Your task to perform on an android device: change notifications settings Image 0: 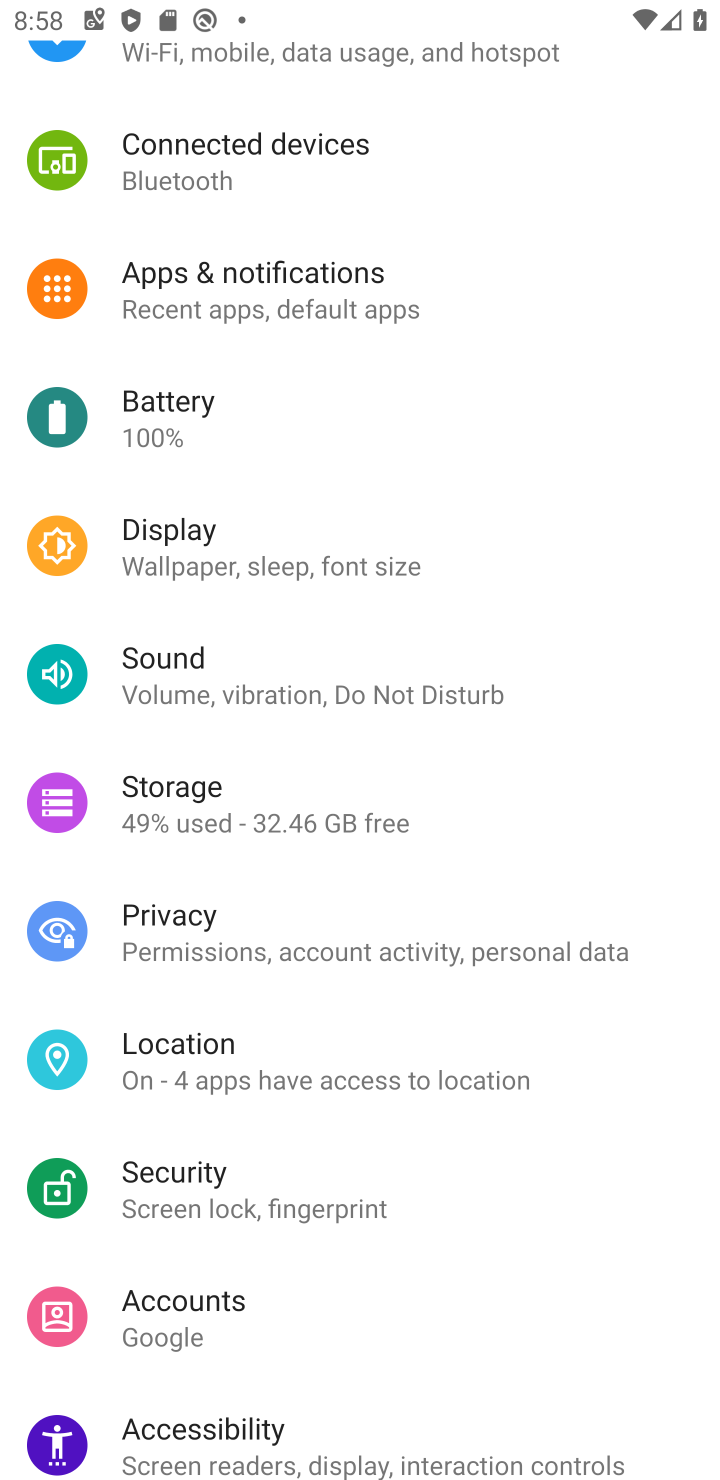
Step 0: click (261, 307)
Your task to perform on an android device: change notifications settings Image 1: 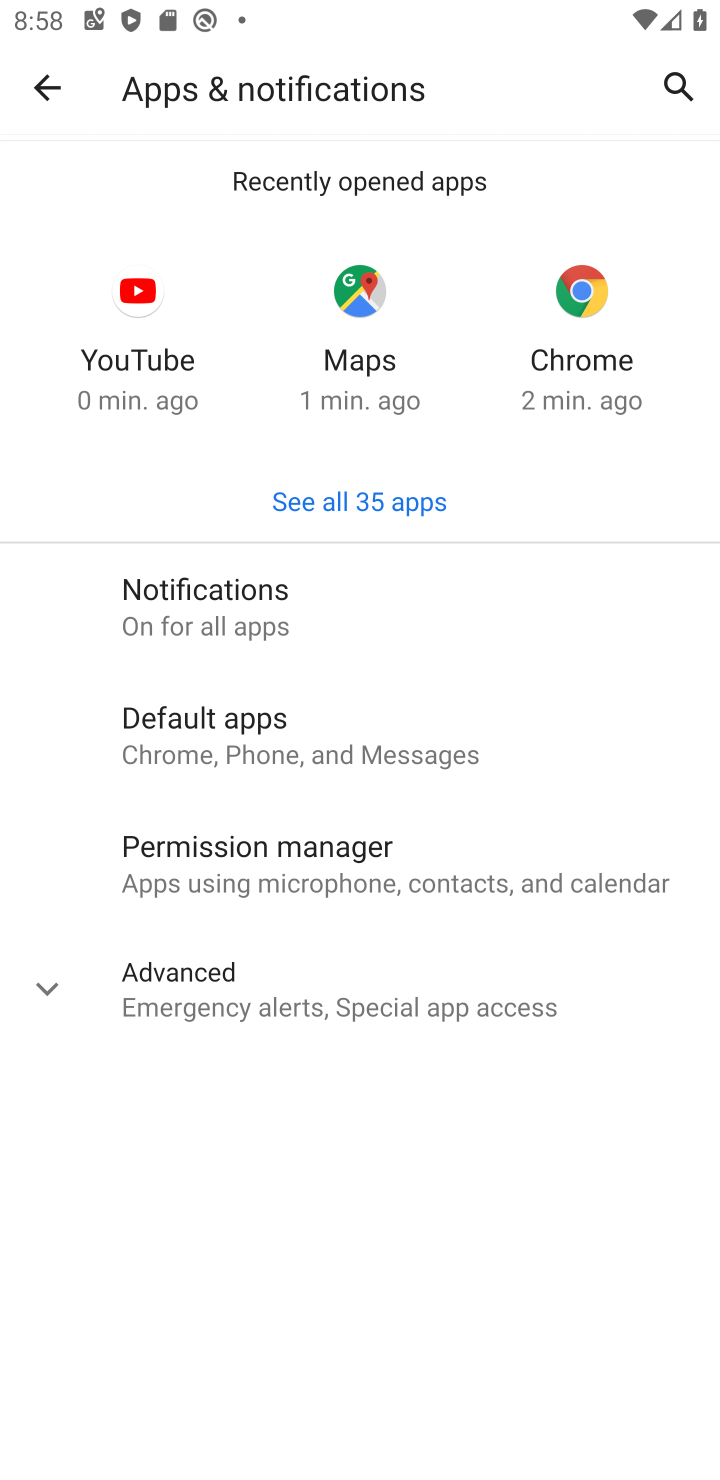
Step 1: click (289, 599)
Your task to perform on an android device: change notifications settings Image 2: 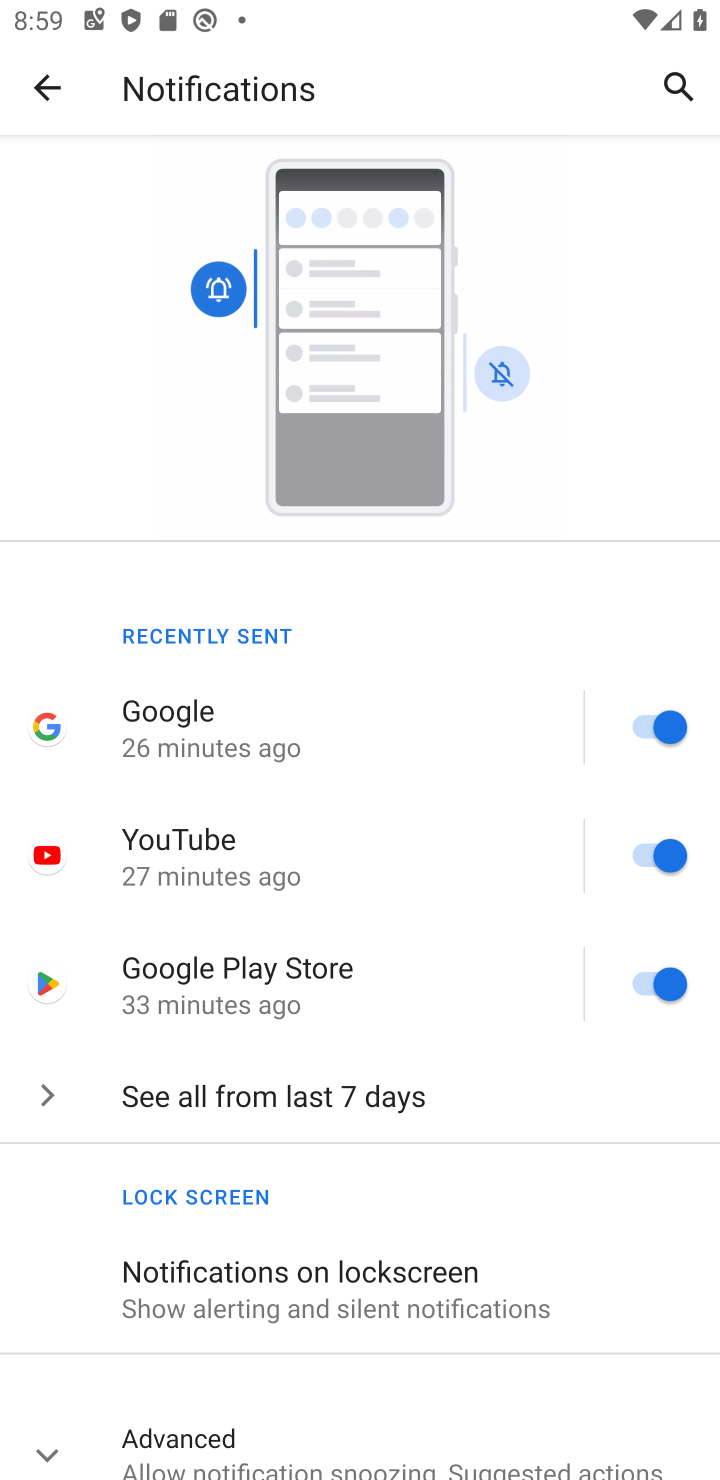
Step 2: drag from (453, 936) to (404, 79)
Your task to perform on an android device: change notifications settings Image 3: 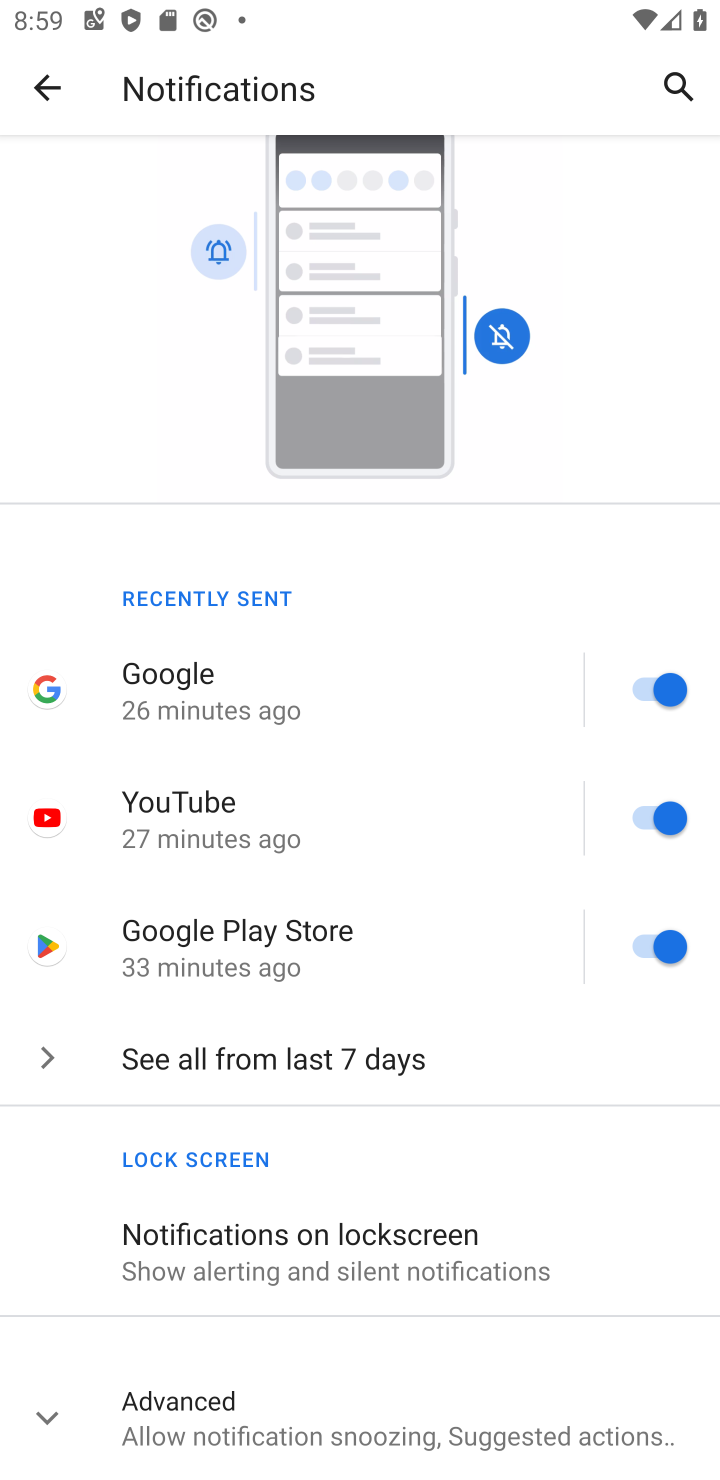
Step 3: click (418, 1423)
Your task to perform on an android device: change notifications settings Image 4: 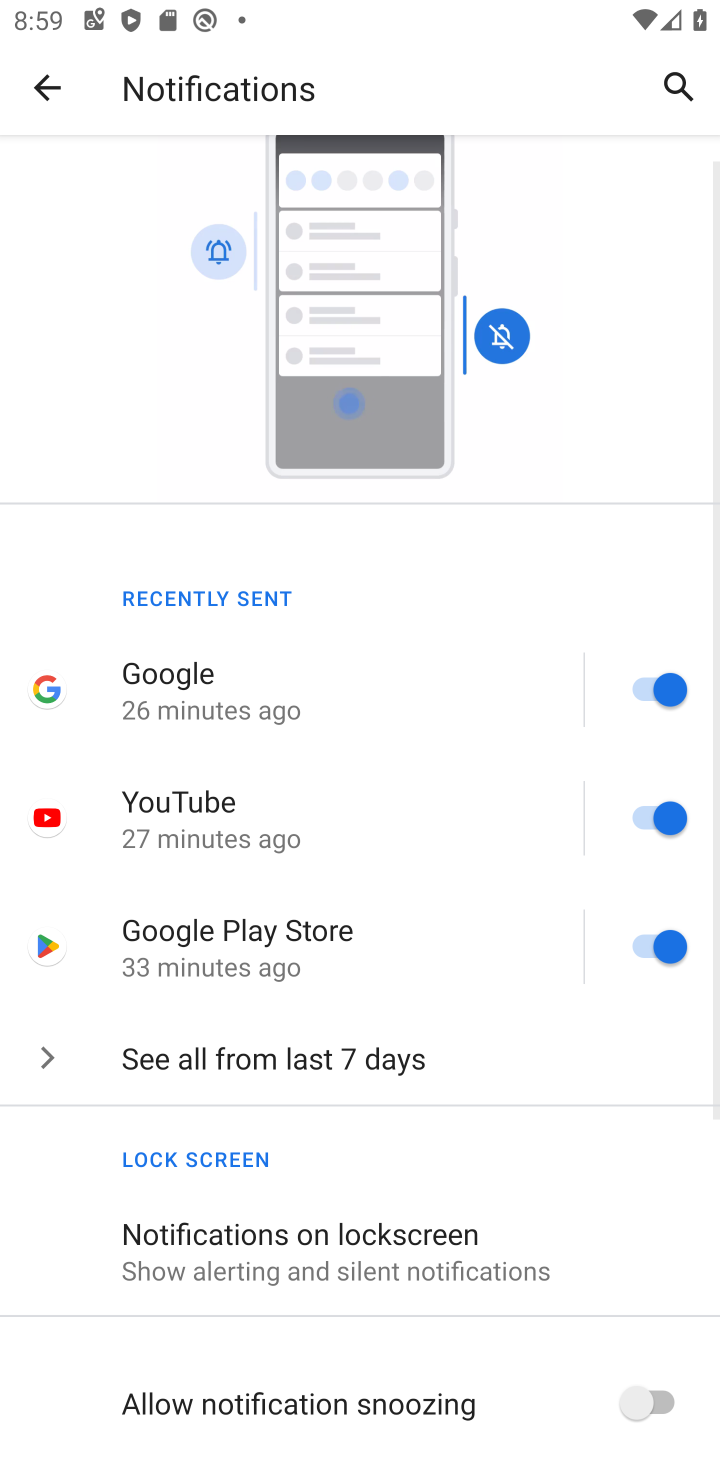
Step 4: drag from (418, 1423) to (480, 276)
Your task to perform on an android device: change notifications settings Image 5: 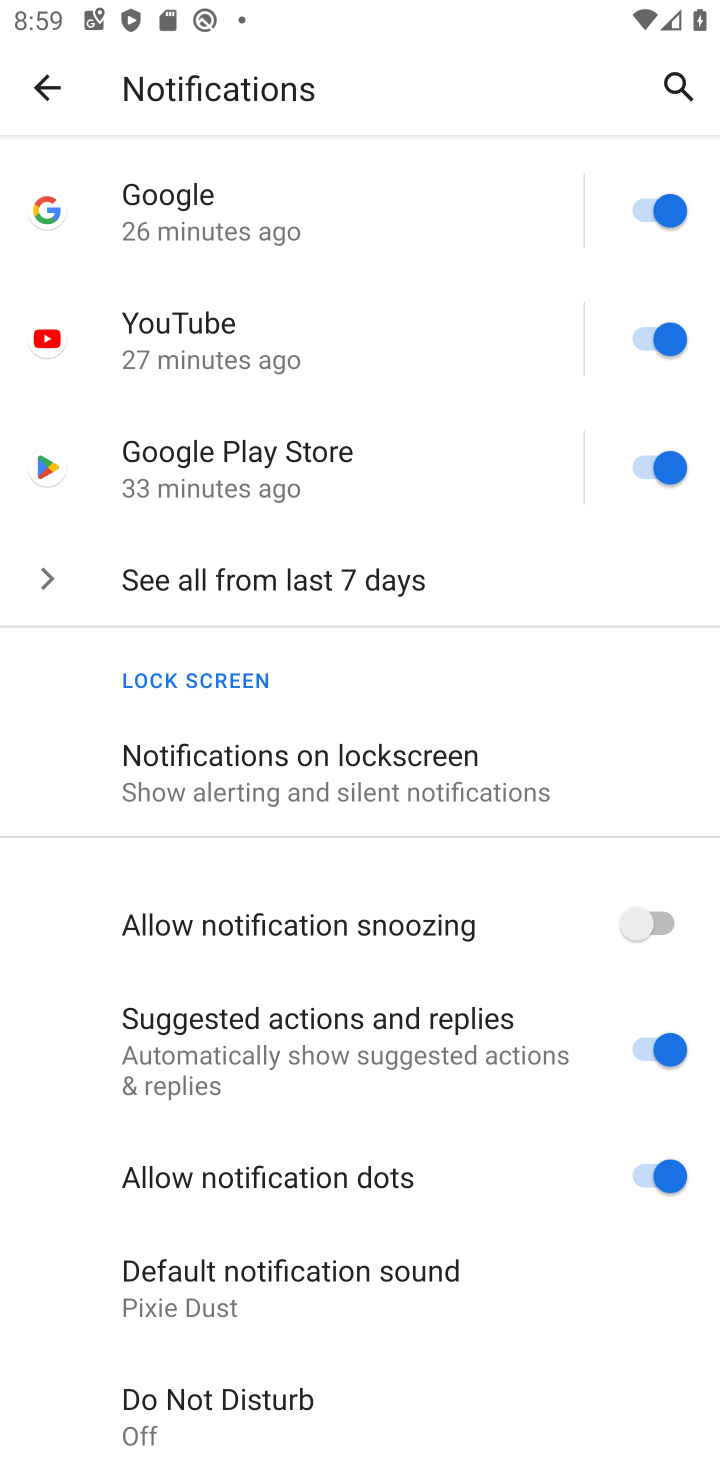
Step 5: click (648, 922)
Your task to perform on an android device: change notifications settings Image 6: 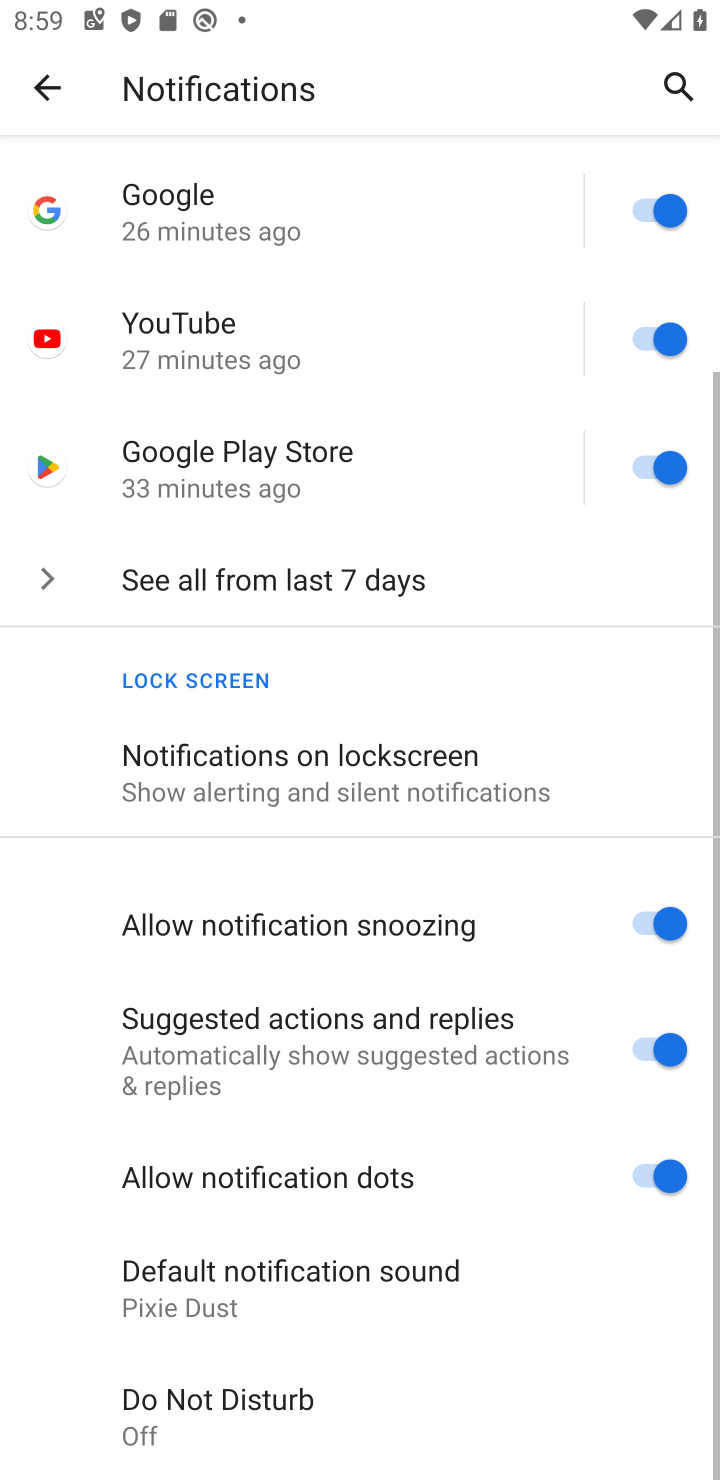
Step 6: click (668, 1052)
Your task to perform on an android device: change notifications settings Image 7: 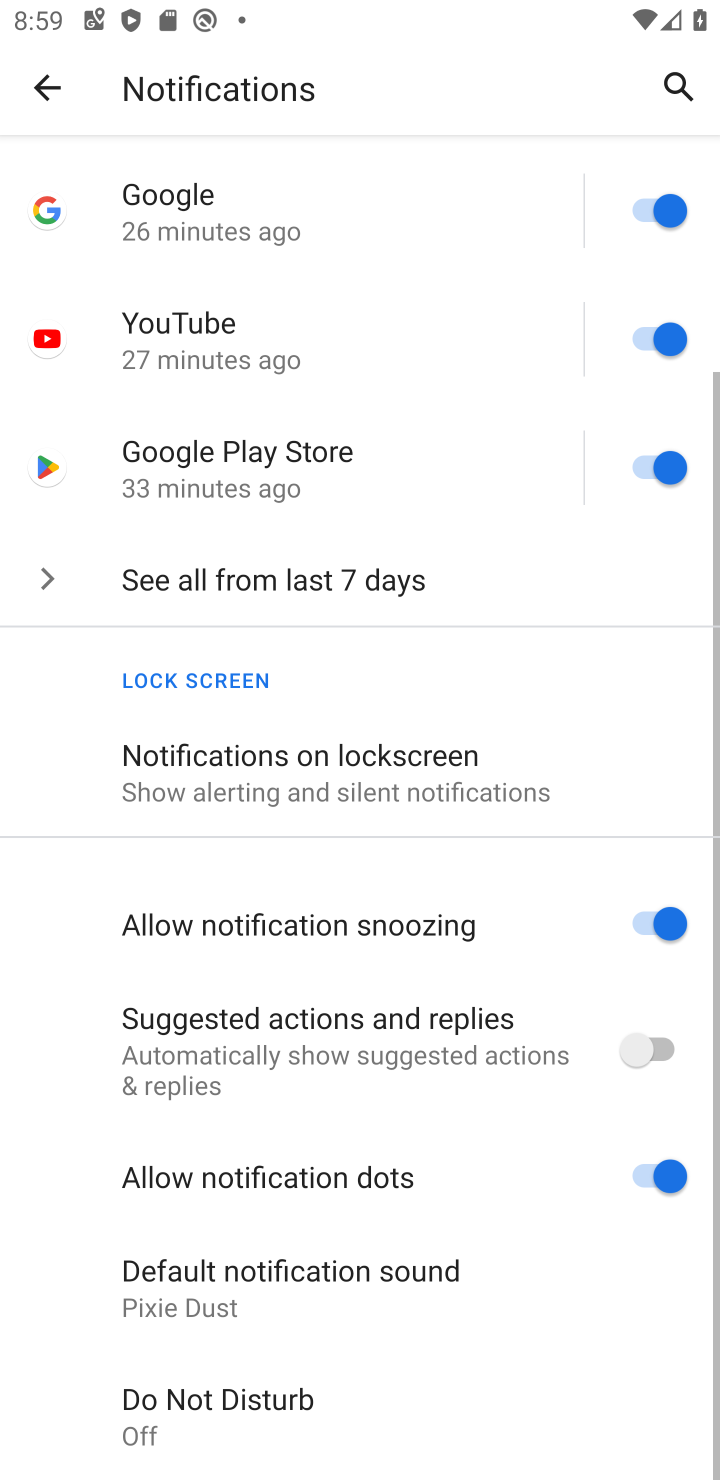
Step 7: click (652, 1182)
Your task to perform on an android device: change notifications settings Image 8: 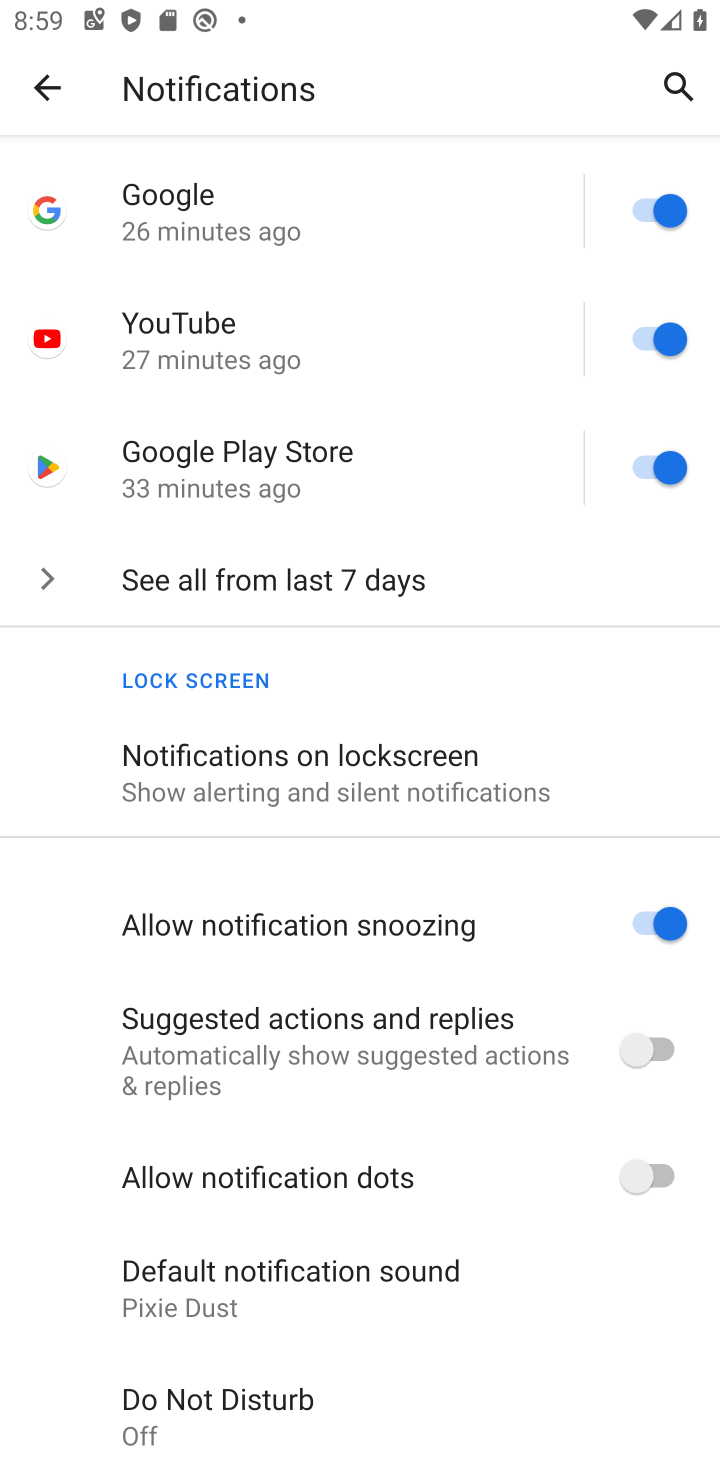
Step 8: task complete